Your task to perform on an android device: Search for the best running shoes on Nike. Image 0: 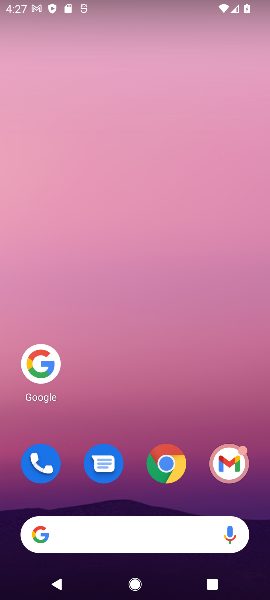
Step 0: click (42, 349)
Your task to perform on an android device: Search for the best running shoes on Nike. Image 1: 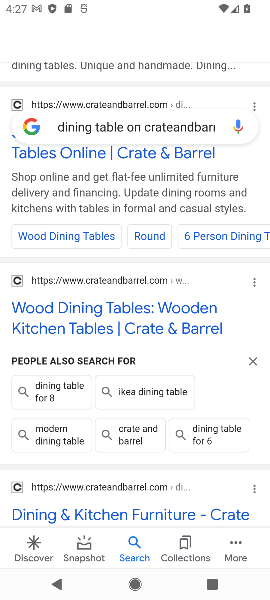
Step 1: click (188, 120)
Your task to perform on an android device: Search for the best running shoes on Nike. Image 2: 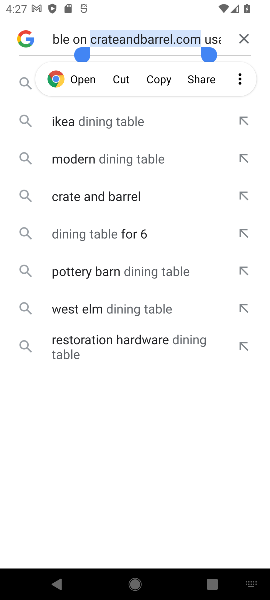
Step 2: click (244, 29)
Your task to perform on an android device: Search for the best running shoes on Nike. Image 3: 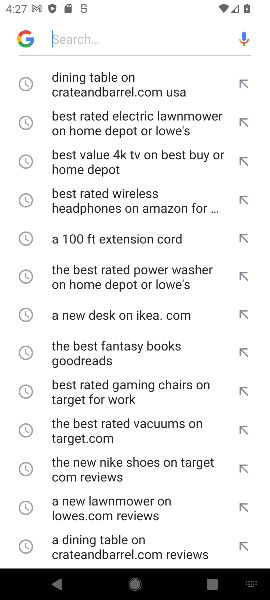
Step 3: click (162, 32)
Your task to perform on an android device: Search for the best running shoes on Nike. Image 4: 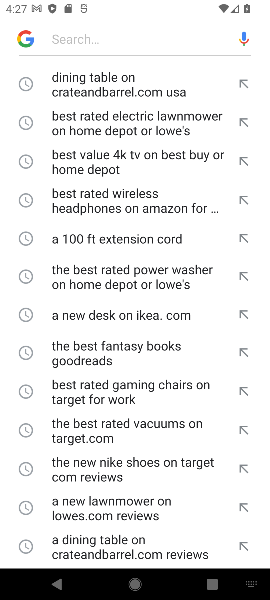
Step 4: type "the best running shoes on Nike"
Your task to perform on an android device: Search for the best running shoes on Nike. Image 5: 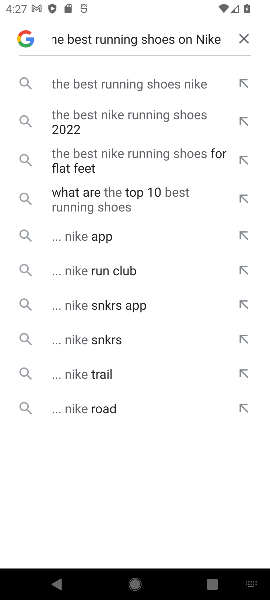
Step 5: click (152, 87)
Your task to perform on an android device: Search for the best running shoes on Nike. Image 6: 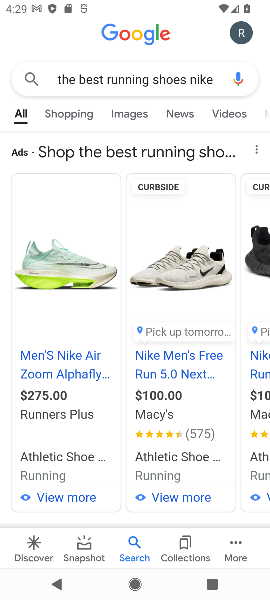
Step 6: task complete